Your task to perform on an android device: Go to Google Image 0: 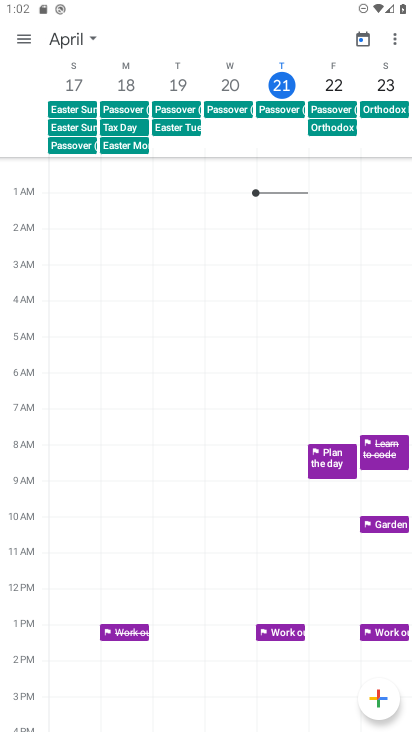
Step 0: press home button
Your task to perform on an android device: Go to Google Image 1: 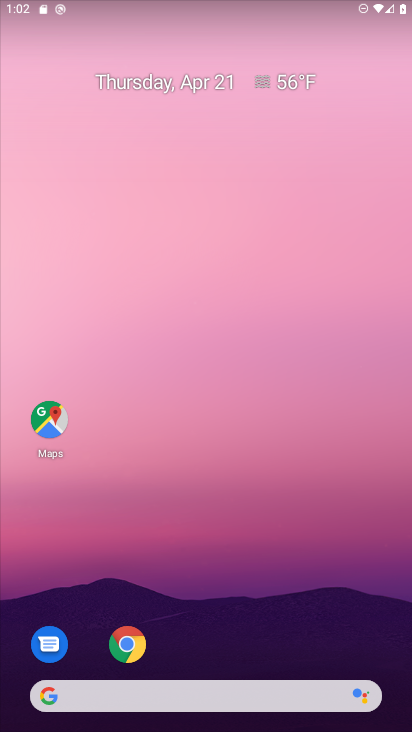
Step 1: drag from (200, 655) to (300, 175)
Your task to perform on an android device: Go to Google Image 2: 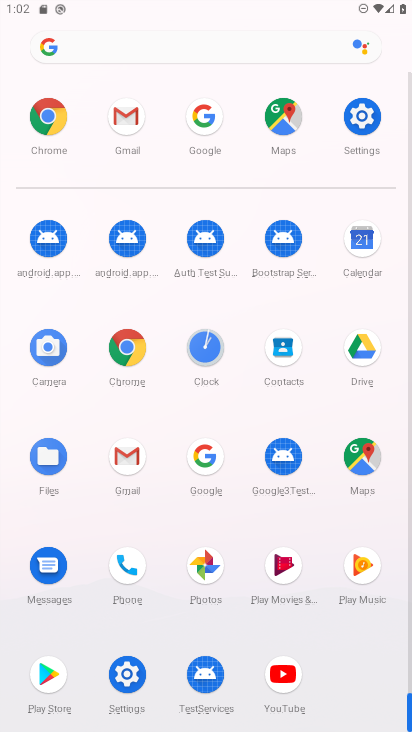
Step 2: click (210, 464)
Your task to perform on an android device: Go to Google Image 3: 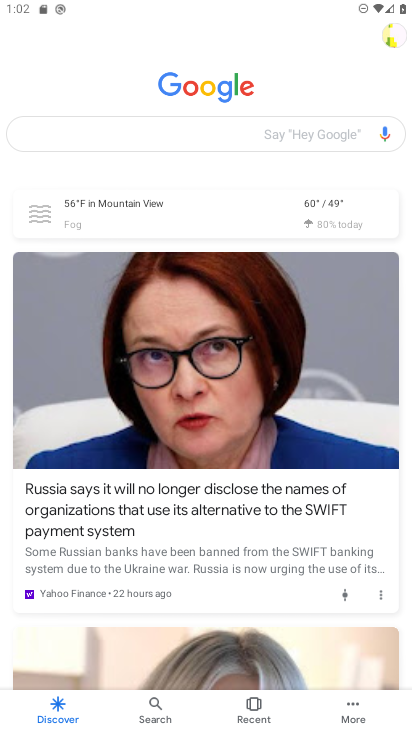
Step 3: task complete